Your task to perform on an android device: Open calendar and show me the third week of next month Image 0: 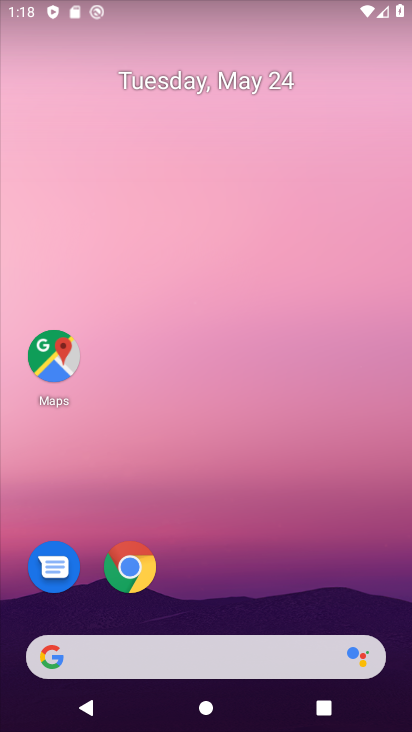
Step 0: drag from (190, 610) to (265, 204)
Your task to perform on an android device: Open calendar and show me the third week of next month Image 1: 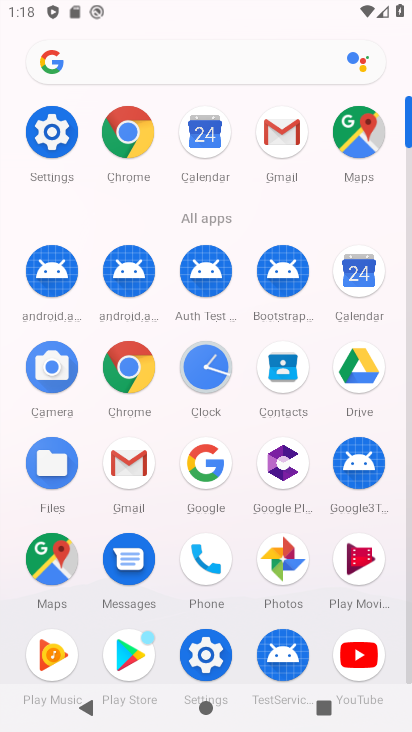
Step 1: click (354, 279)
Your task to perform on an android device: Open calendar and show me the third week of next month Image 2: 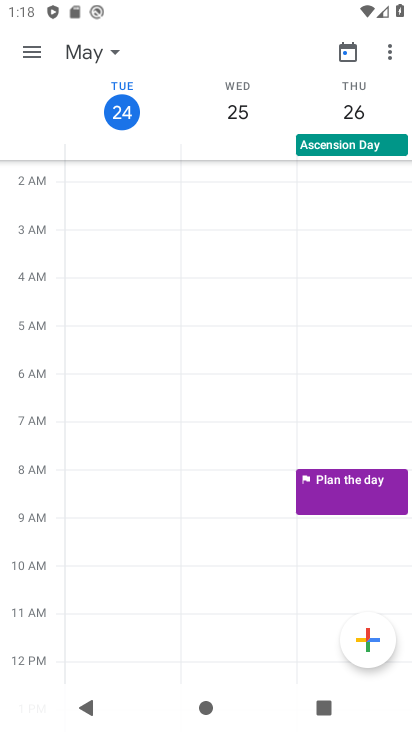
Step 2: click (26, 54)
Your task to perform on an android device: Open calendar and show me the third week of next month Image 3: 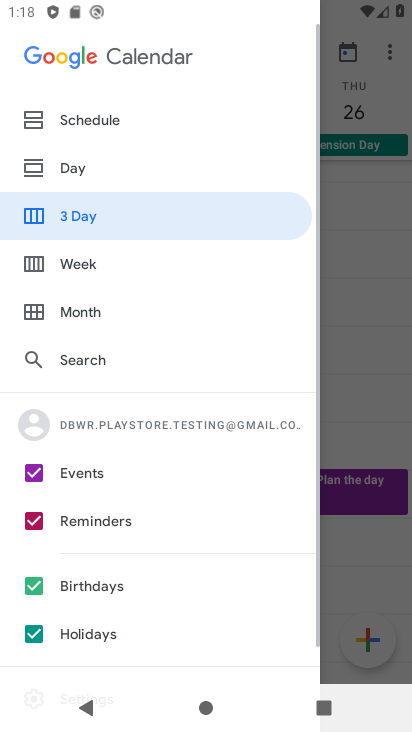
Step 3: click (90, 273)
Your task to perform on an android device: Open calendar and show me the third week of next month Image 4: 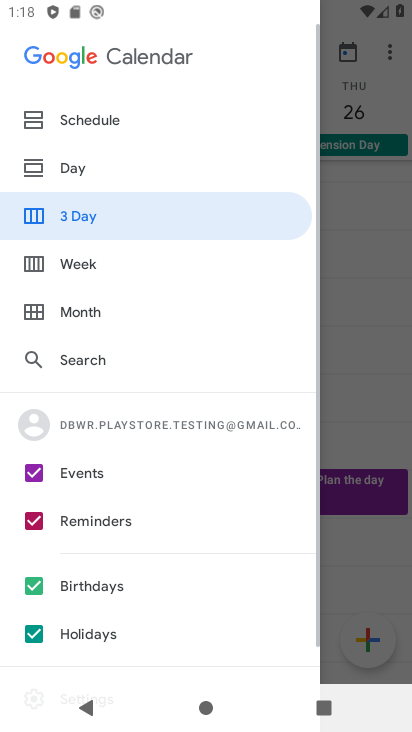
Step 4: click (73, 271)
Your task to perform on an android device: Open calendar and show me the third week of next month Image 5: 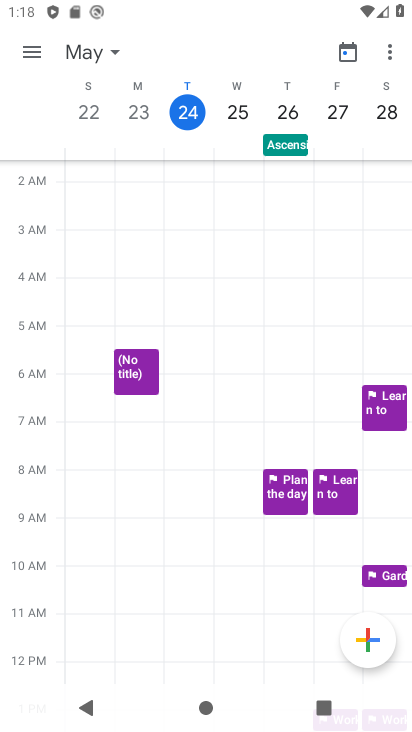
Step 5: task complete